Your task to perform on an android device: What's on my calendar tomorrow? Image 0: 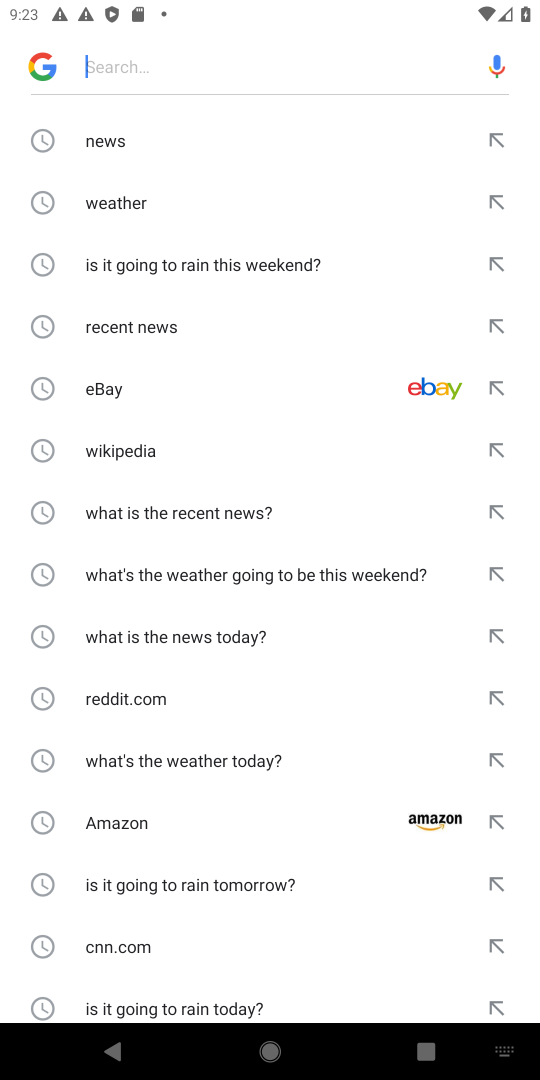
Step 0: press home button
Your task to perform on an android device: What's on my calendar tomorrow? Image 1: 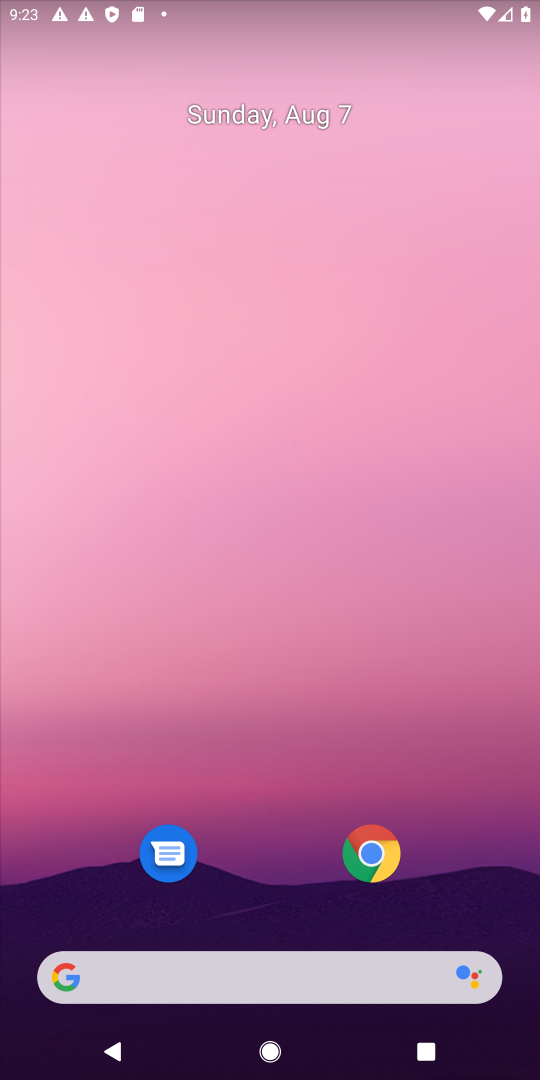
Step 1: drag from (440, 874) to (470, 252)
Your task to perform on an android device: What's on my calendar tomorrow? Image 2: 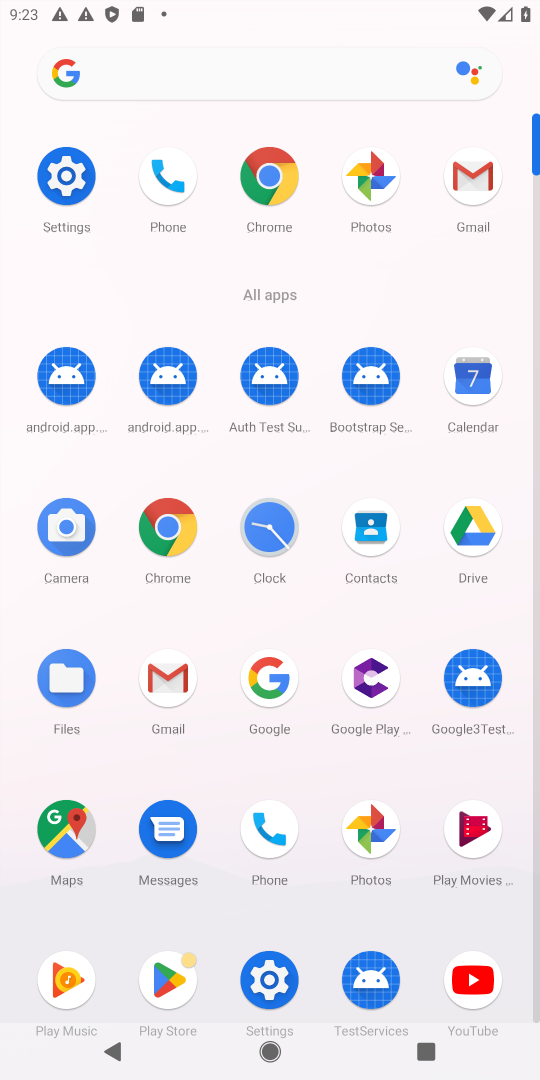
Step 2: click (469, 387)
Your task to perform on an android device: What's on my calendar tomorrow? Image 3: 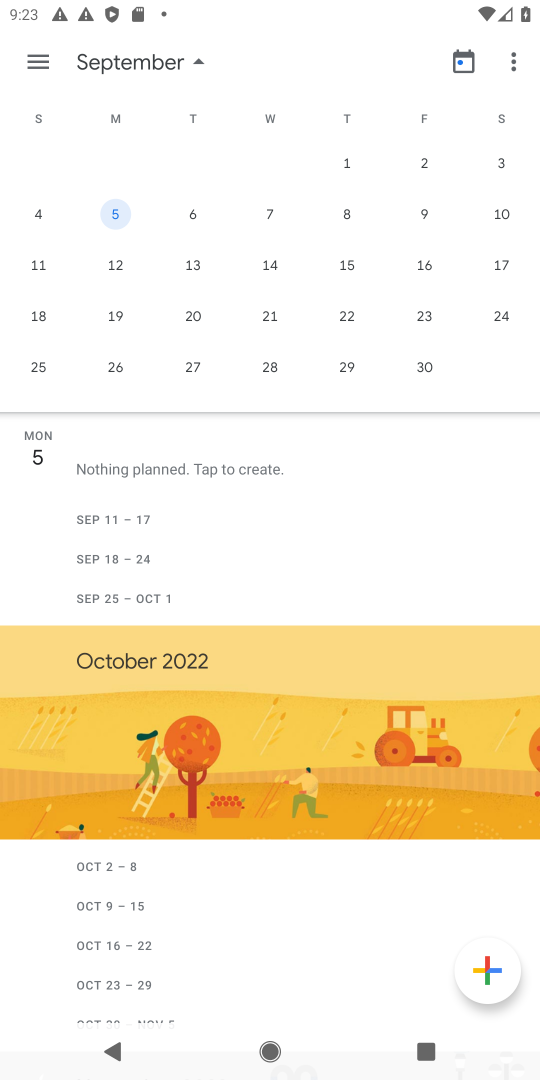
Step 3: drag from (282, 528) to (306, 247)
Your task to perform on an android device: What's on my calendar tomorrow? Image 4: 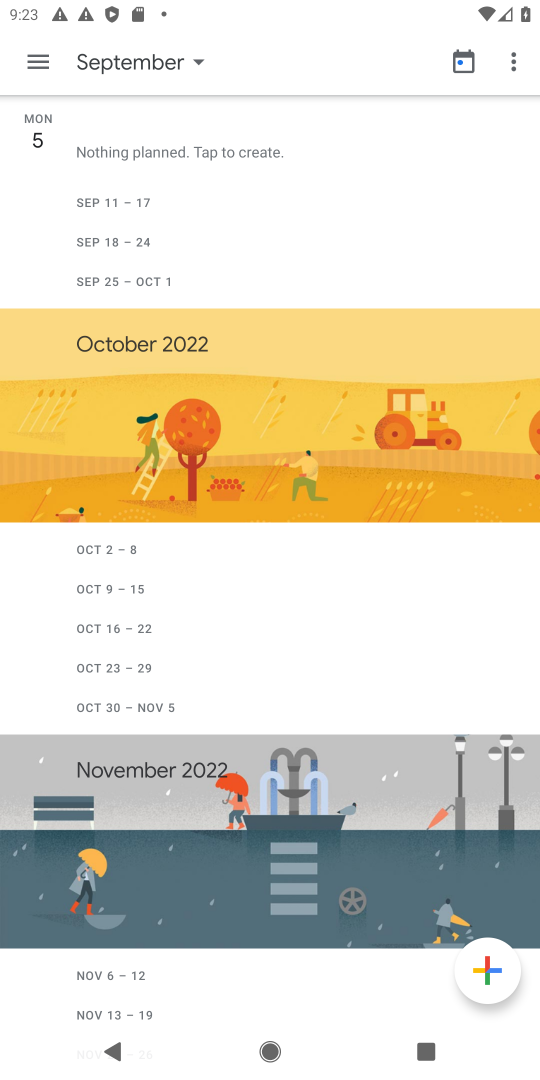
Step 4: drag from (300, 123) to (295, 328)
Your task to perform on an android device: What's on my calendar tomorrow? Image 5: 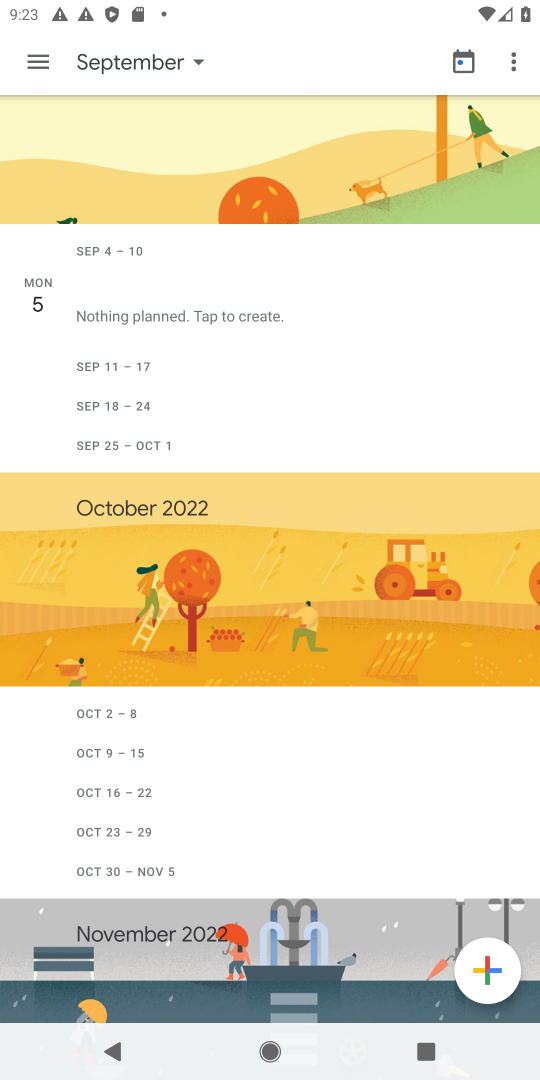
Step 5: drag from (289, 143) to (272, 415)
Your task to perform on an android device: What's on my calendar tomorrow? Image 6: 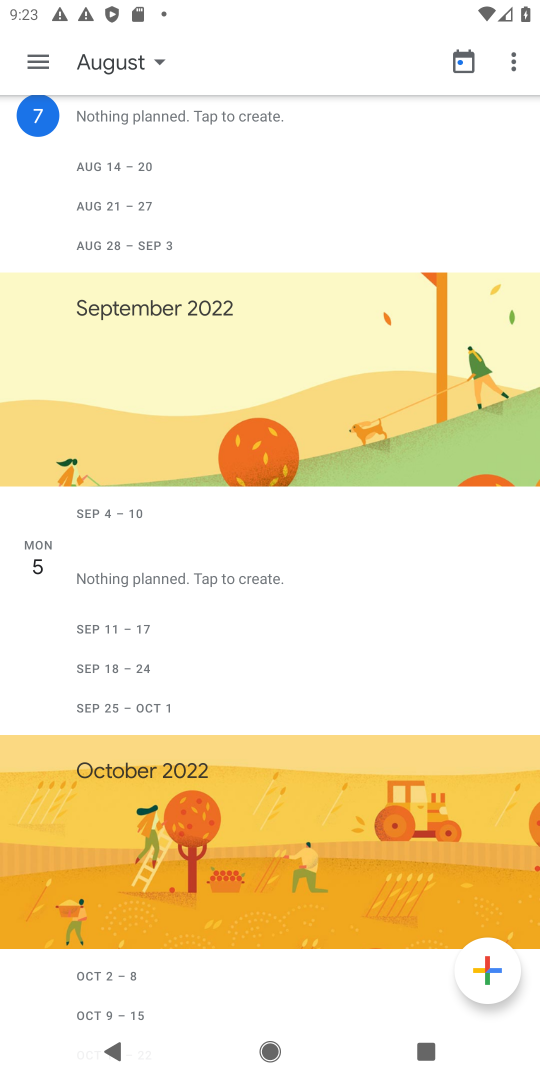
Step 6: drag from (290, 150) to (288, 348)
Your task to perform on an android device: What's on my calendar tomorrow? Image 7: 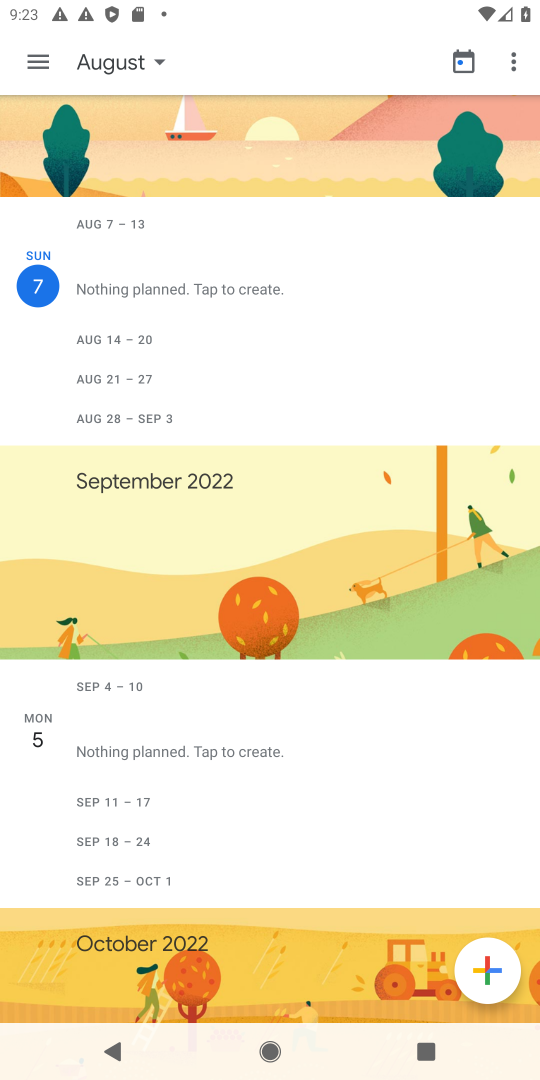
Step 7: click (154, 56)
Your task to perform on an android device: What's on my calendar tomorrow? Image 8: 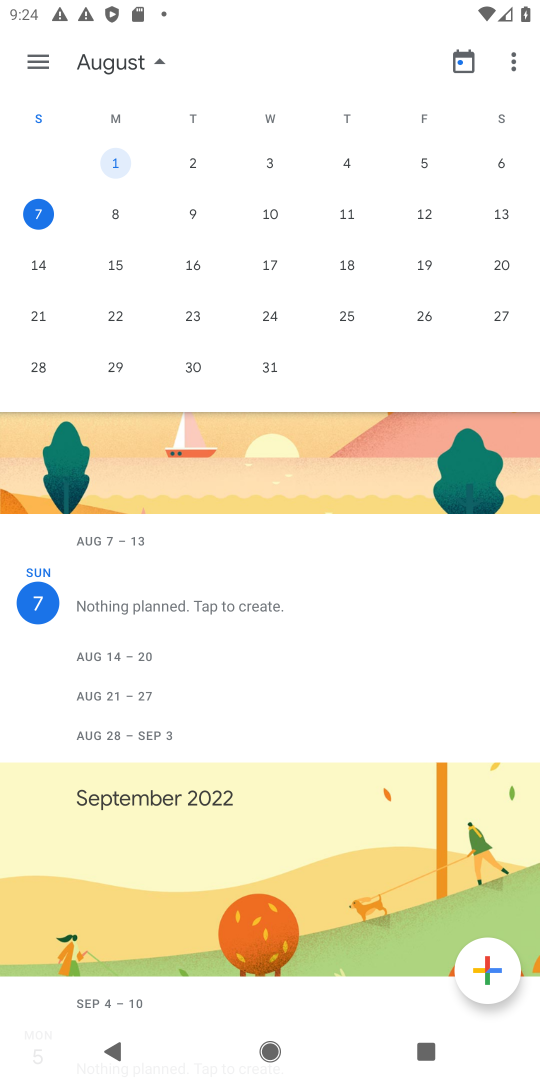
Step 8: click (193, 214)
Your task to perform on an android device: What's on my calendar tomorrow? Image 9: 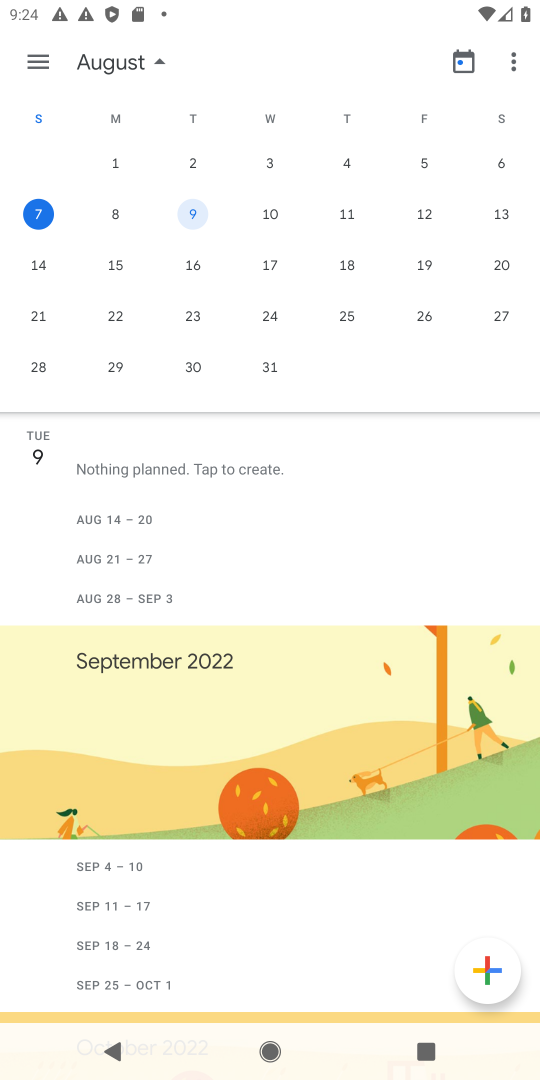
Step 9: task complete